Your task to perform on an android device: Go to Amazon Image 0: 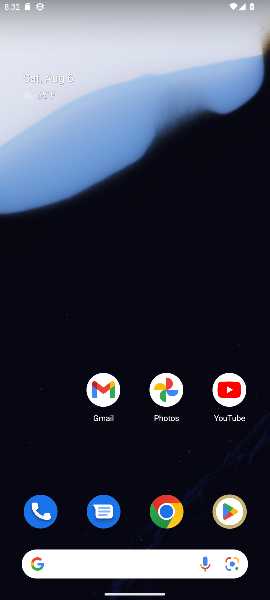
Step 0: press home button
Your task to perform on an android device: Go to Amazon Image 1: 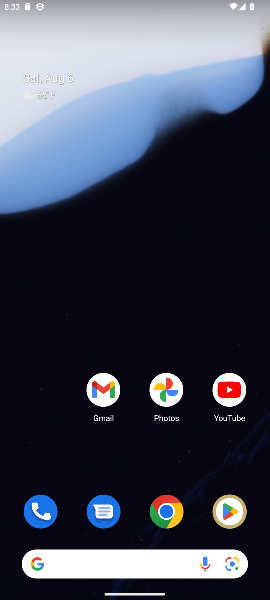
Step 1: click (161, 517)
Your task to perform on an android device: Go to Amazon Image 2: 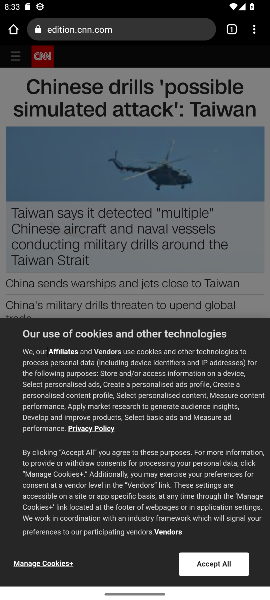
Step 2: click (122, 32)
Your task to perform on an android device: Go to Amazon Image 3: 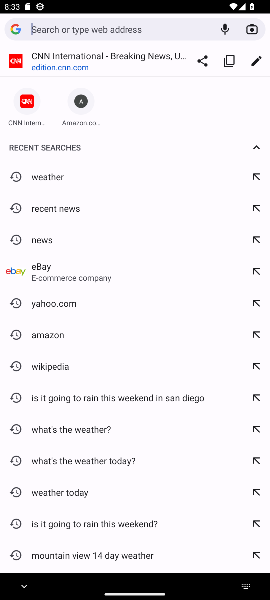
Step 3: type "Amazon"
Your task to perform on an android device: Go to Amazon Image 4: 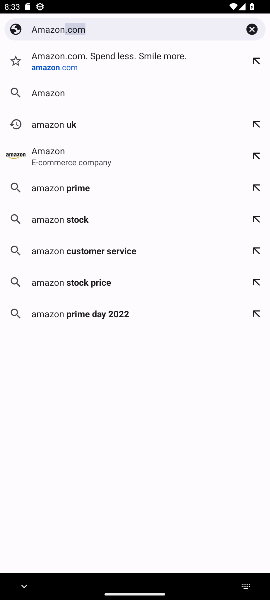
Step 4: click (151, 59)
Your task to perform on an android device: Go to Amazon Image 5: 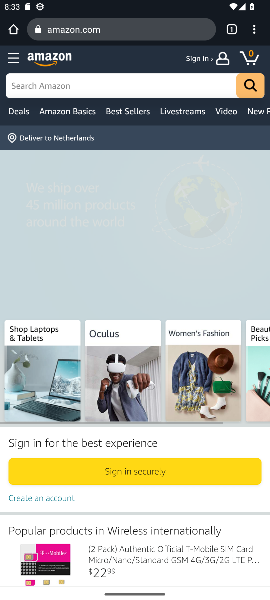
Step 5: task complete